Your task to perform on an android device: Open calendar and show me the first week of next month Image 0: 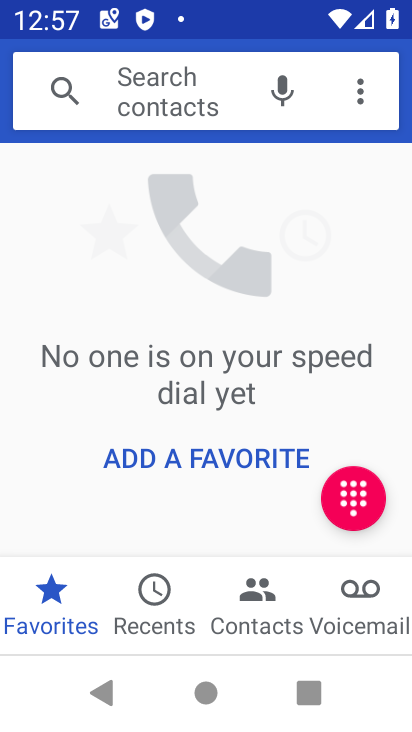
Step 0: press home button
Your task to perform on an android device: Open calendar and show me the first week of next month Image 1: 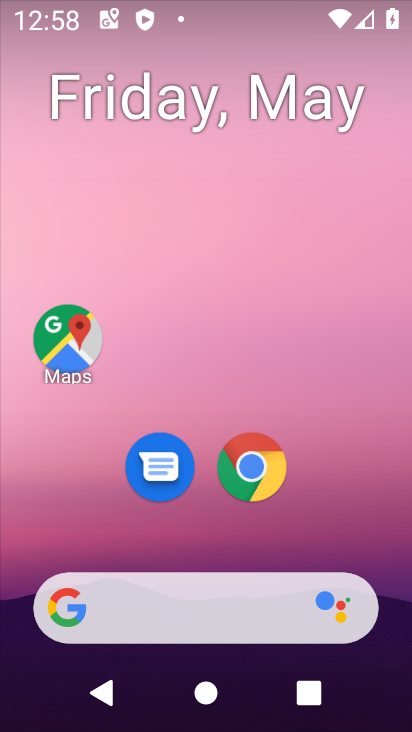
Step 1: drag from (45, 521) to (4, 18)
Your task to perform on an android device: Open calendar and show me the first week of next month Image 2: 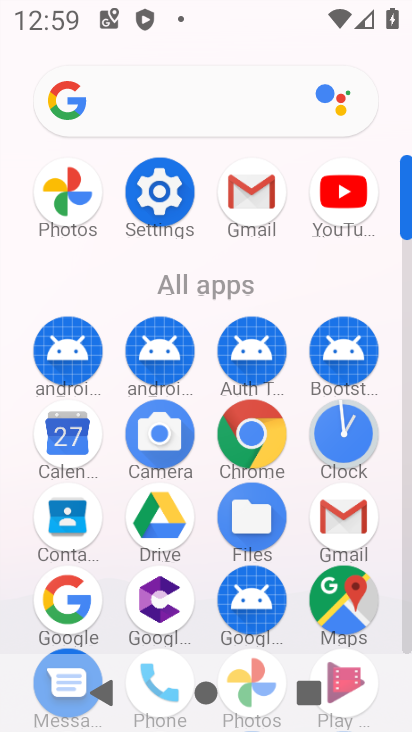
Step 2: drag from (300, 565) to (290, 348)
Your task to perform on an android device: Open calendar and show me the first week of next month Image 3: 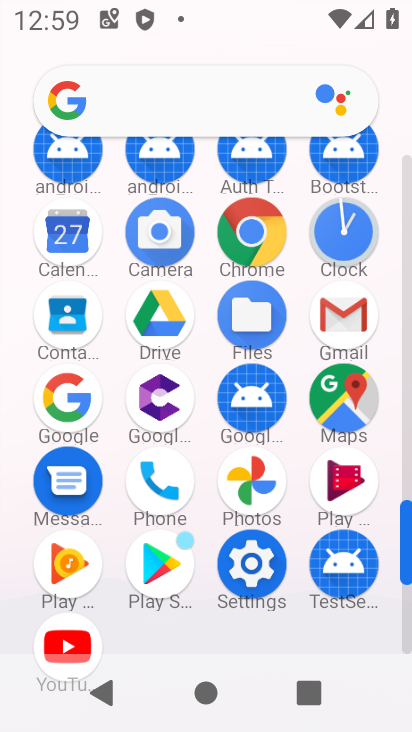
Step 3: click (74, 230)
Your task to perform on an android device: Open calendar and show me the first week of next month Image 4: 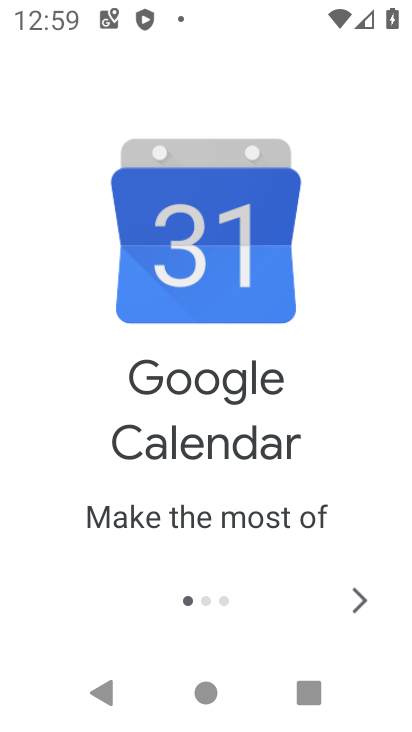
Step 4: click (356, 605)
Your task to perform on an android device: Open calendar and show me the first week of next month Image 5: 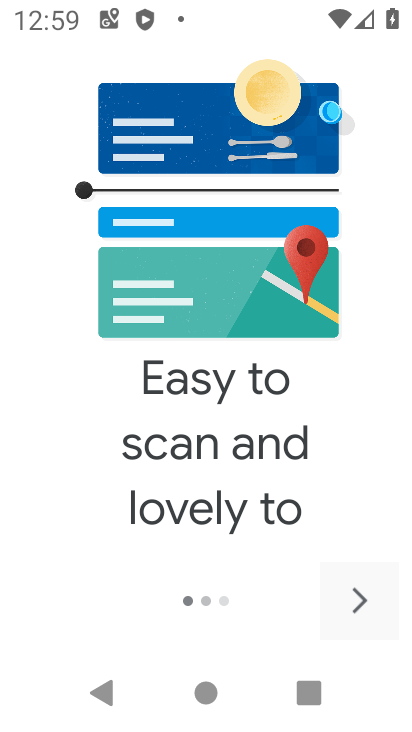
Step 5: click (356, 605)
Your task to perform on an android device: Open calendar and show me the first week of next month Image 6: 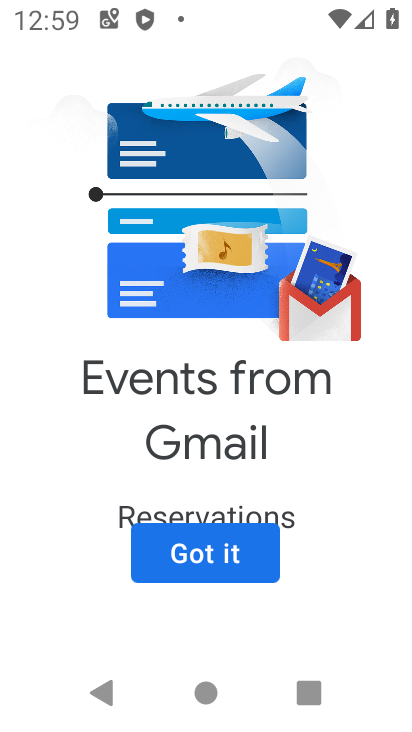
Step 6: click (139, 560)
Your task to perform on an android device: Open calendar and show me the first week of next month Image 7: 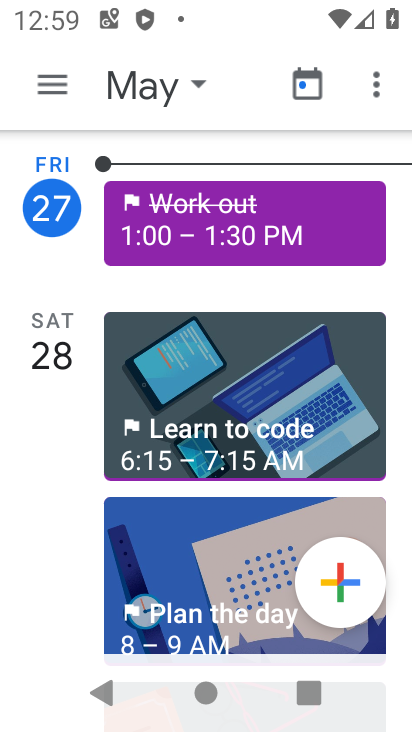
Step 7: click (193, 75)
Your task to perform on an android device: Open calendar and show me the first week of next month Image 8: 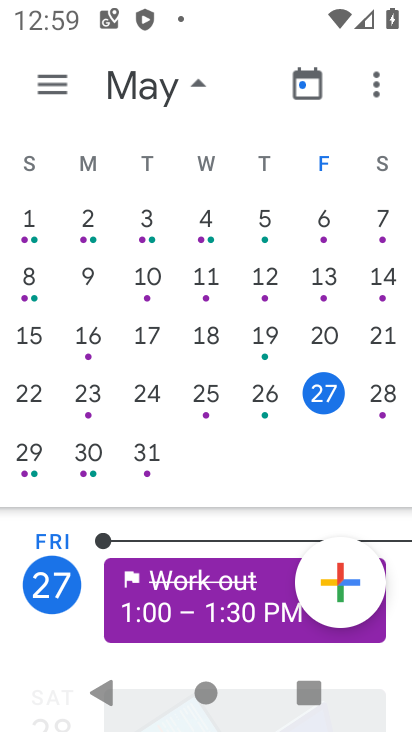
Step 8: task complete